Your task to perform on an android device: Open Youtube and go to the subscriptions tab Image 0: 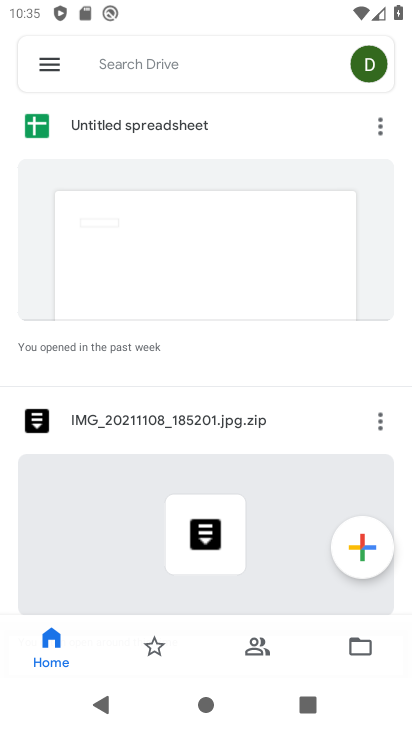
Step 0: press home button
Your task to perform on an android device: Open Youtube and go to the subscriptions tab Image 1: 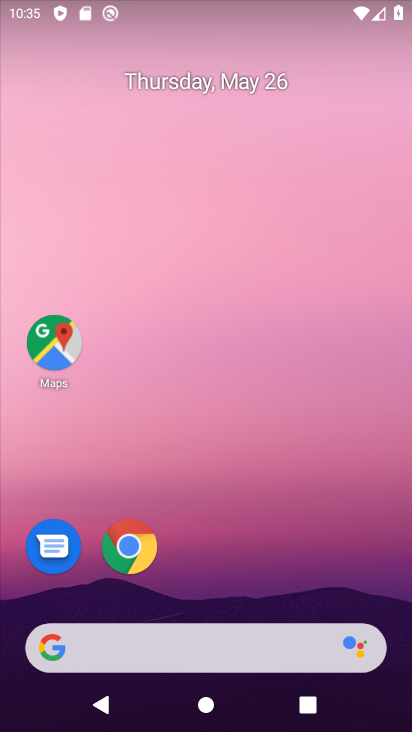
Step 1: drag from (242, 567) to (251, 152)
Your task to perform on an android device: Open Youtube and go to the subscriptions tab Image 2: 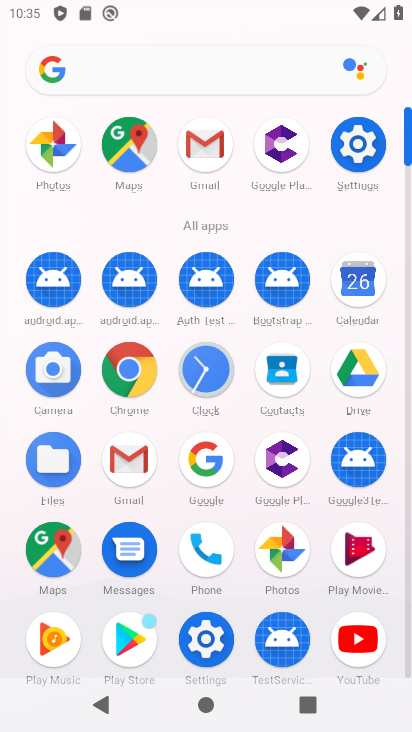
Step 2: click (369, 649)
Your task to perform on an android device: Open Youtube and go to the subscriptions tab Image 3: 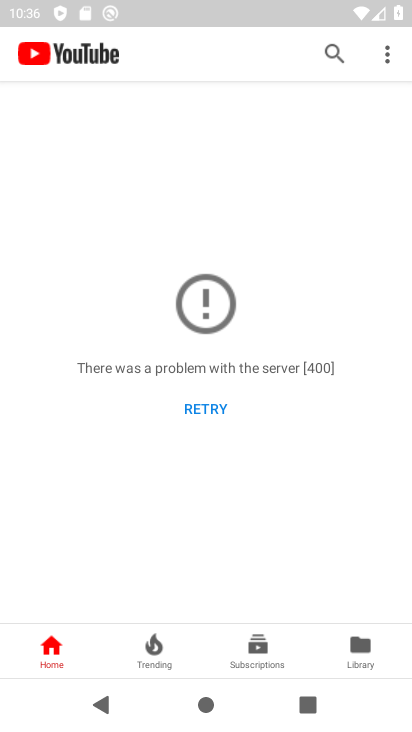
Step 3: click (260, 650)
Your task to perform on an android device: Open Youtube and go to the subscriptions tab Image 4: 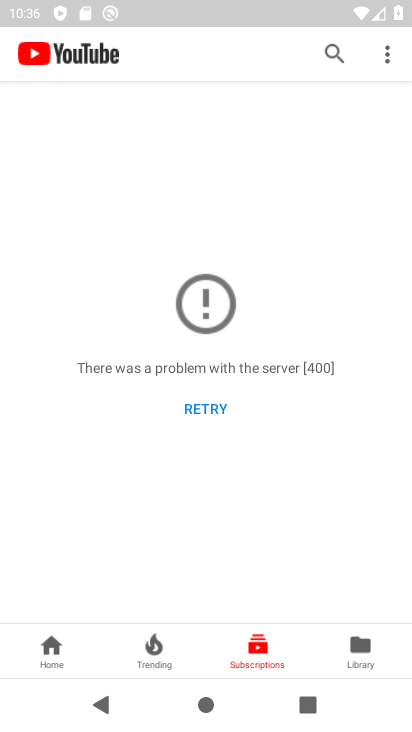
Step 4: click (211, 413)
Your task to perform on an android device: Open Youtube and go to the subscriptions tab Image 5: 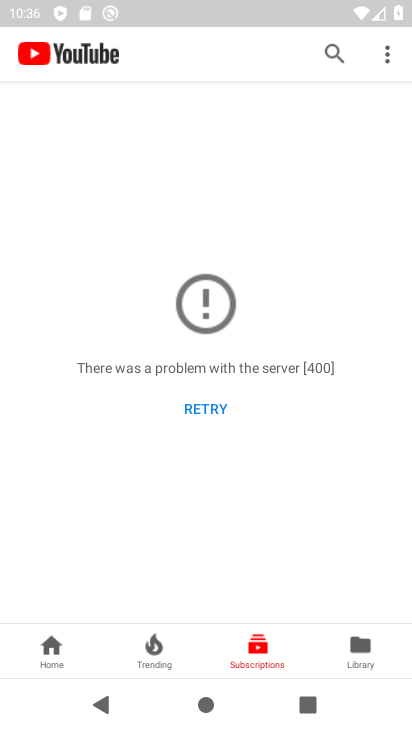
Step 5: task complete